Your task to perform on an android device: Play the last video I watched on Youtube Image 0: 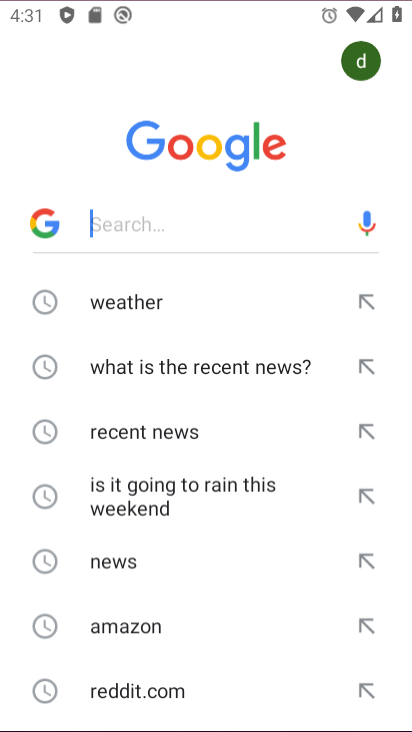
Step 0: drag from (271, 602) to (228, 280)
Your task to perform on an android device: Play the last video I watched on Youtube Image 1: 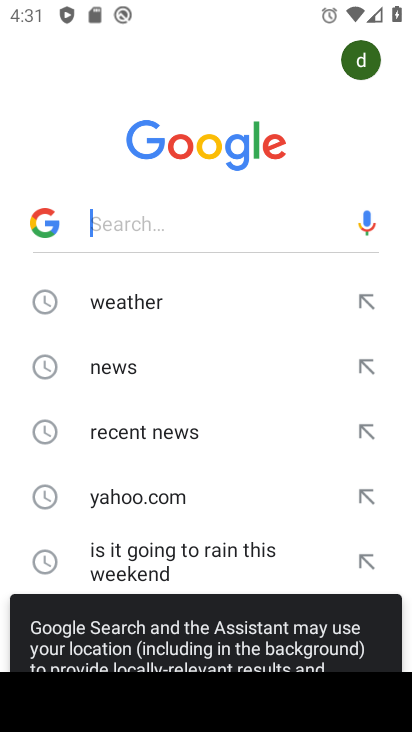
Step 1: press home button
Your task to perform on an android device: Play the last video I watched on Youtube Image 2: 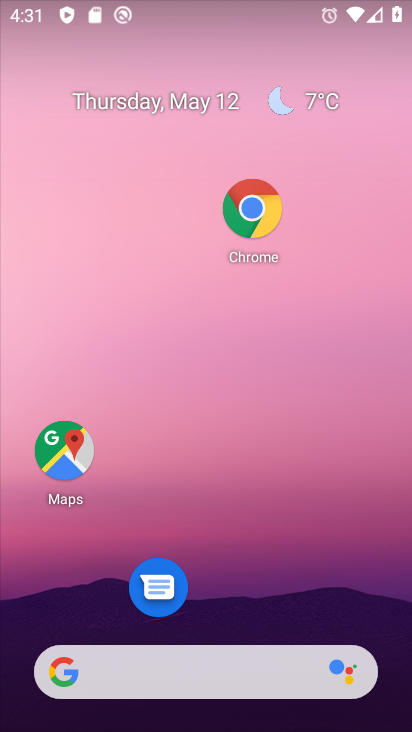
Step 2: drag from (275, 598) to (241, 262)
Your task to perform on an android device: Play the last video I watched on Youtube Image 3: 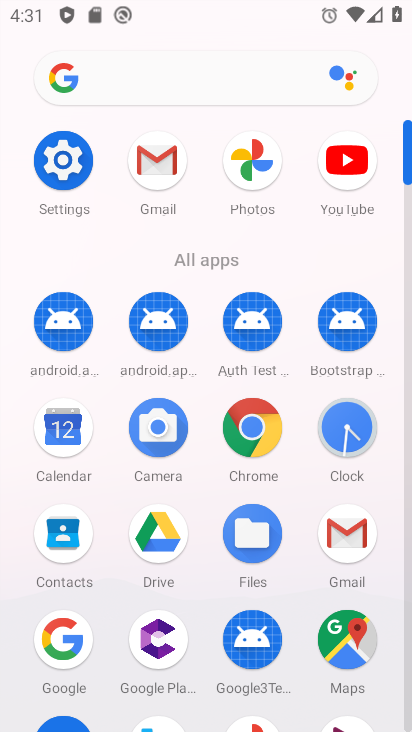
Step 3: drag from (279, 615) to (279, 328)
Your task to perform on an android device: Play the last video I watched on Youtube Image 4: 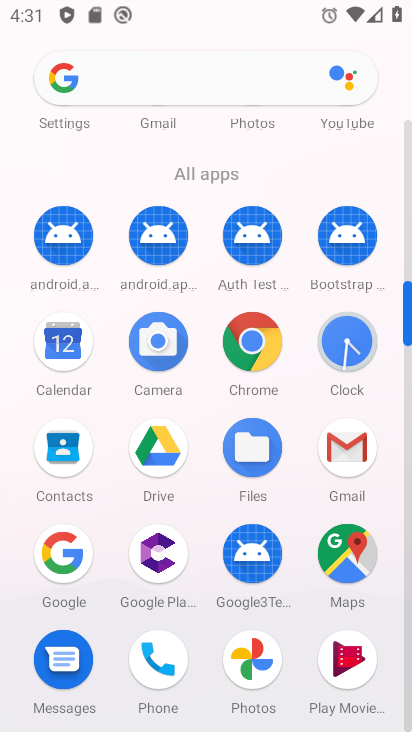
Step 4: drag from (275, 673) to (285, 336)
Your task to perform on an android device: Play the last video I watched on Youtube Image 5: 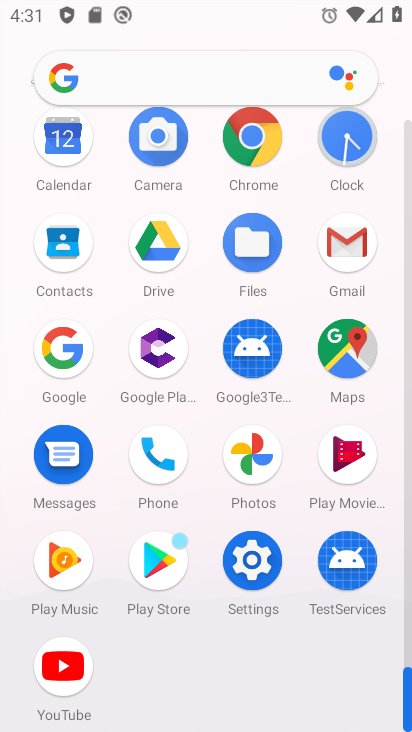
Step 5: drag from (260, 620) to (268, 185)
Your task to perform on an android device: Play the last video I watched on Youtube Image 6: 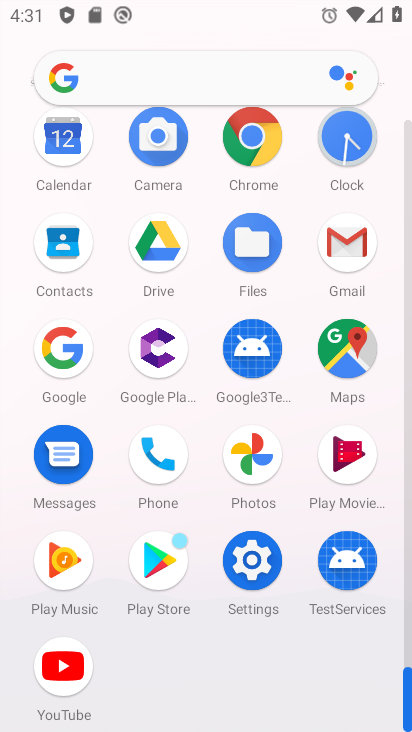
Step 6: click (61, 671)
Your task to perform on an android device: Play the last video I watched on Youtube Image 7: 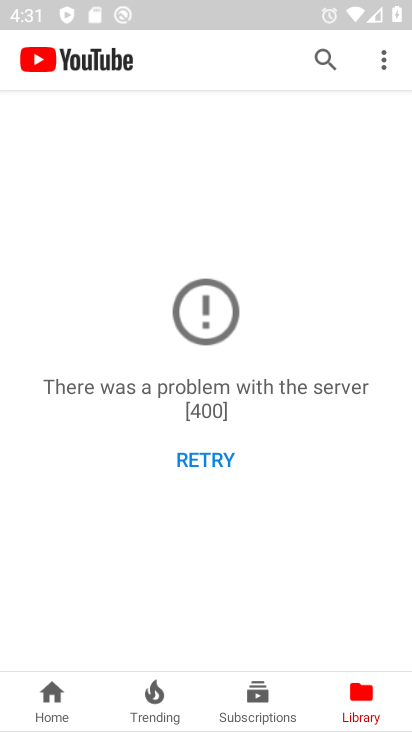
Step 7: task complete